Your task to perform on an android device: Go to display settings Image 0: 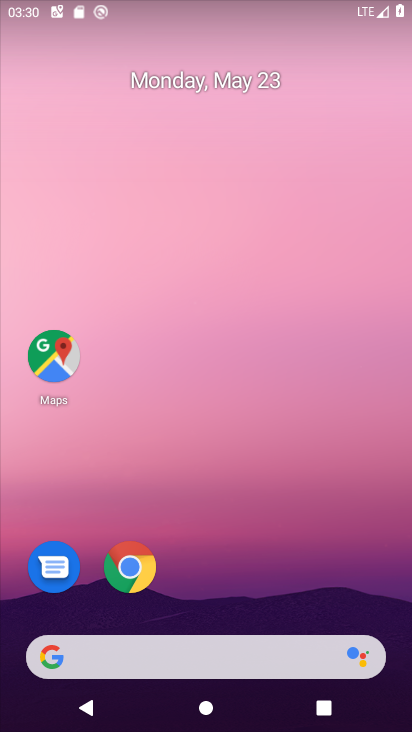
Step 0: drag from (13, 556) to (174, 143)
Your task to perform on an android device: Go to display settings Image 1: 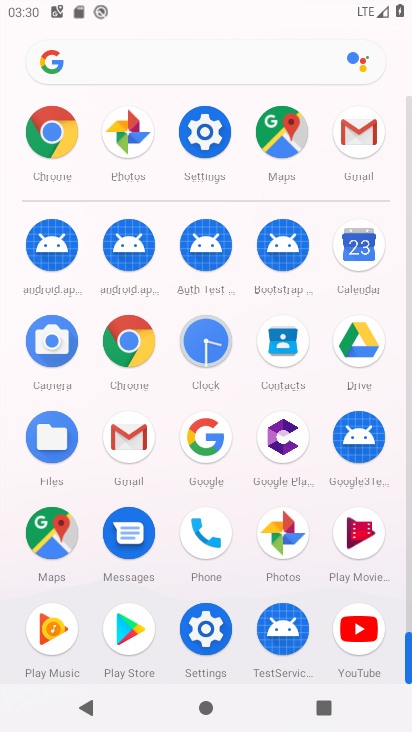
Step 1: click (209, 124)
Your task to perform on an android device: Go to display settings Image 2: 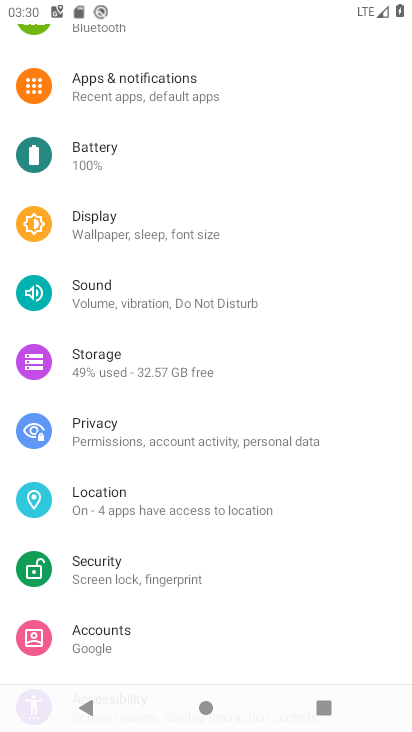
Step 2: click (114, 222)
Your task to perform on an android device: Go to display settings Image 3: 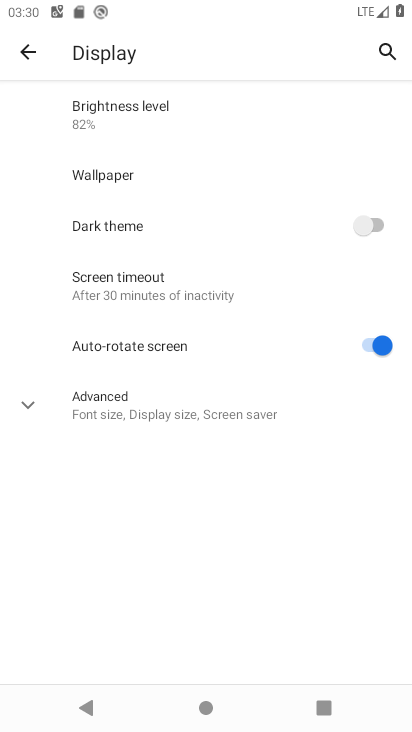
Step 3: task complete